Your task to perform on an android device: See recent photos Image 0: 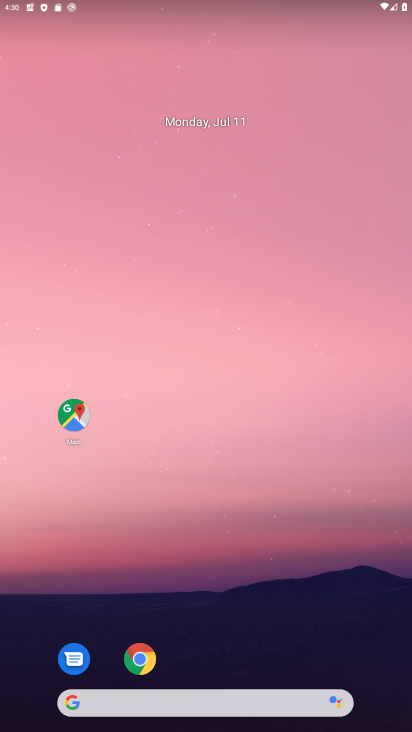
Step 0: drag from (153, 493) to (120, 130)
Your task to perform on an android device: See recent photos Image 1: 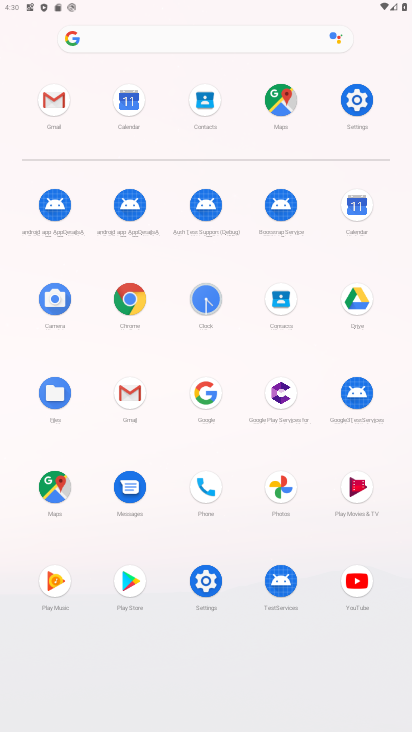
Step 1: click (277, 495)
Your task to perform on an android device: See recent photos Image 2: 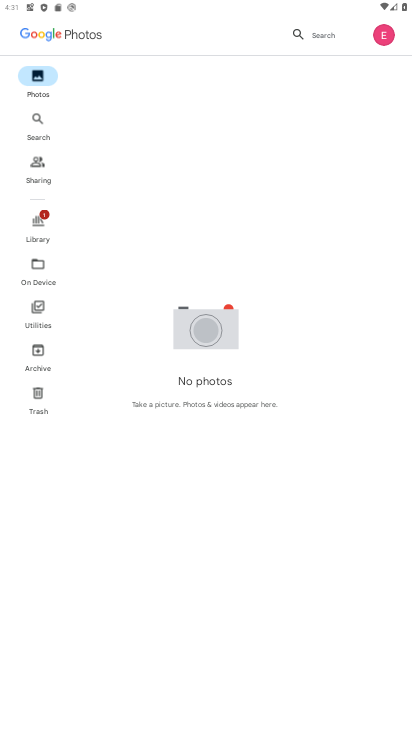
Step 2: task complete